Your task to perform on an android device: check out phone information Image 0: 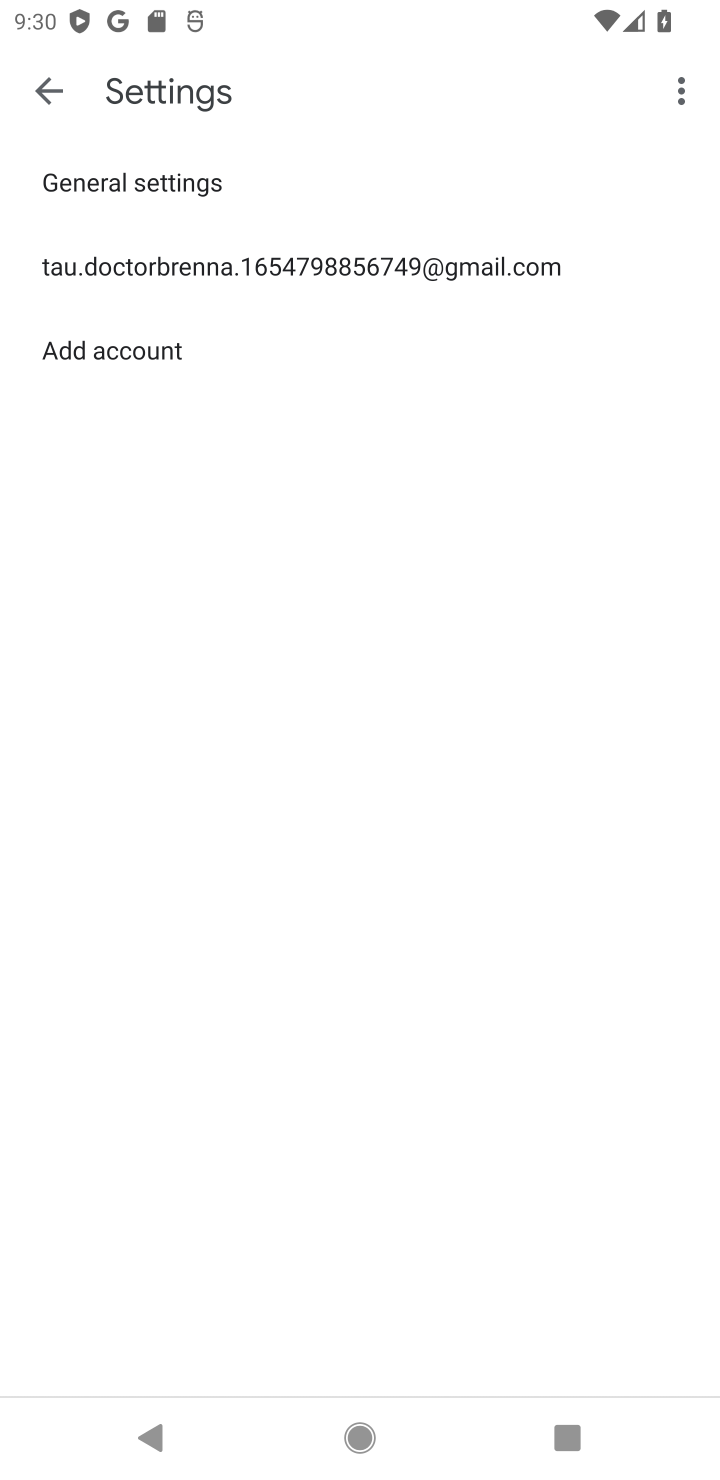
Step 0: press home button
Your task to perform on an android device: check out phone information Image 1: 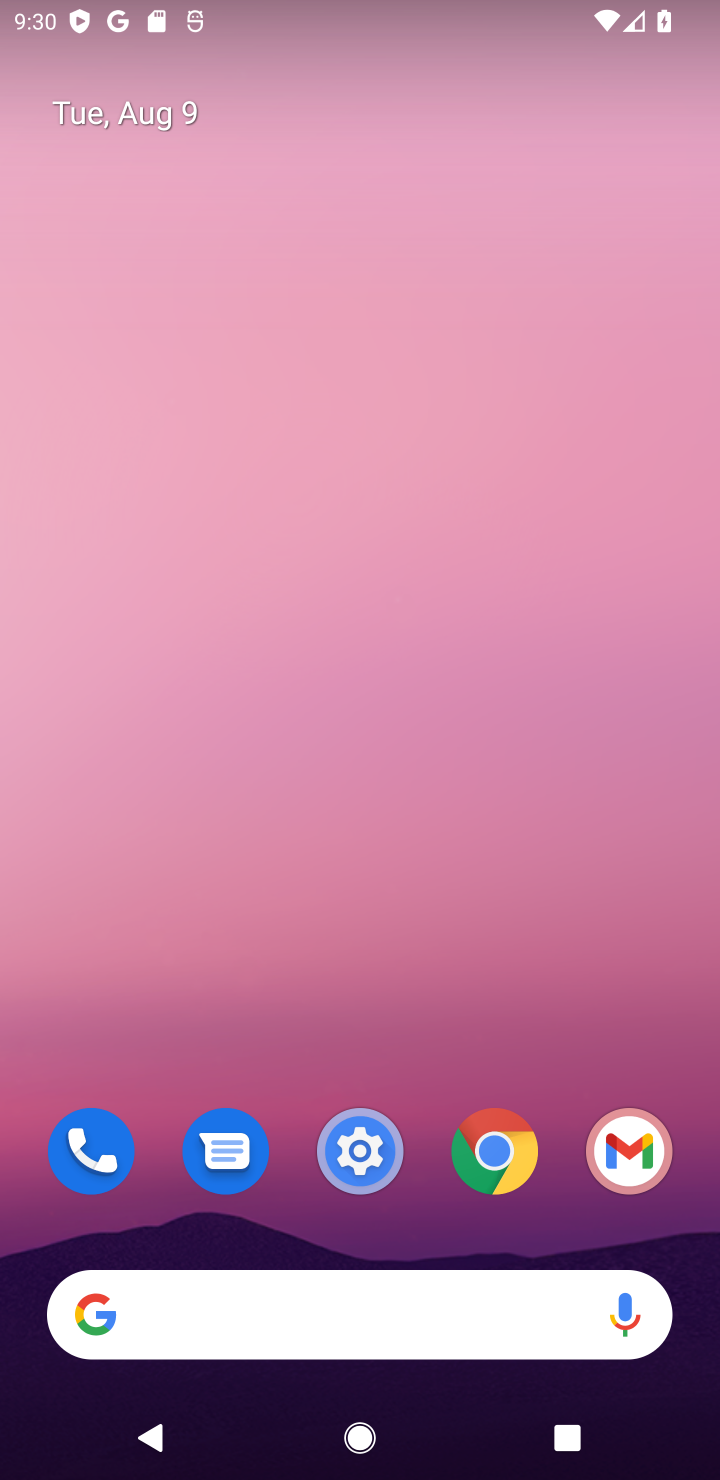
Step 1: click (349, 1151)
Your task to perform on an android device: check out phone information Image 2: 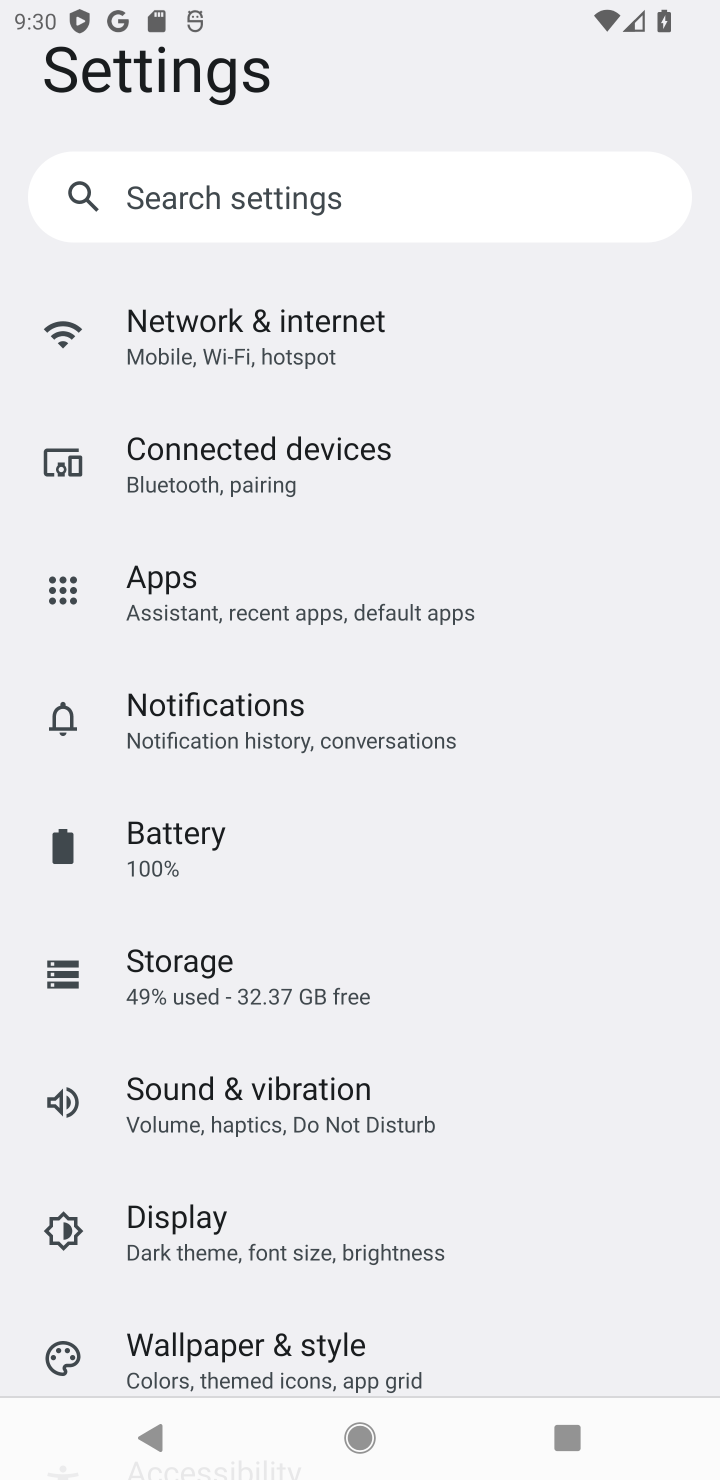
Step 2: drag from (611, 1260) to (568, 303)
Your task to perform on an android device: check out phone information Image 3: 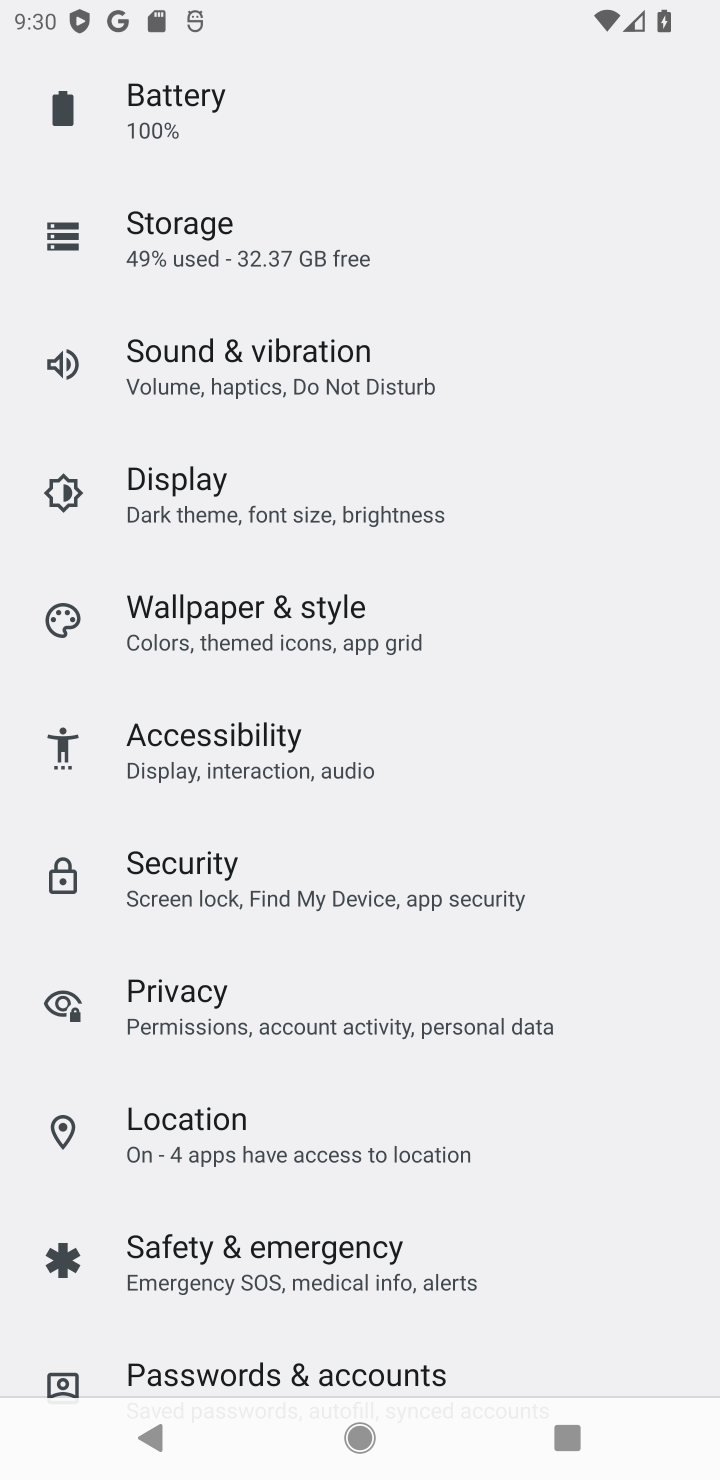
Step 3: drag from (580, 1232) to (484, 285)
Your task to perform on an android device: check out phone information Image 4: 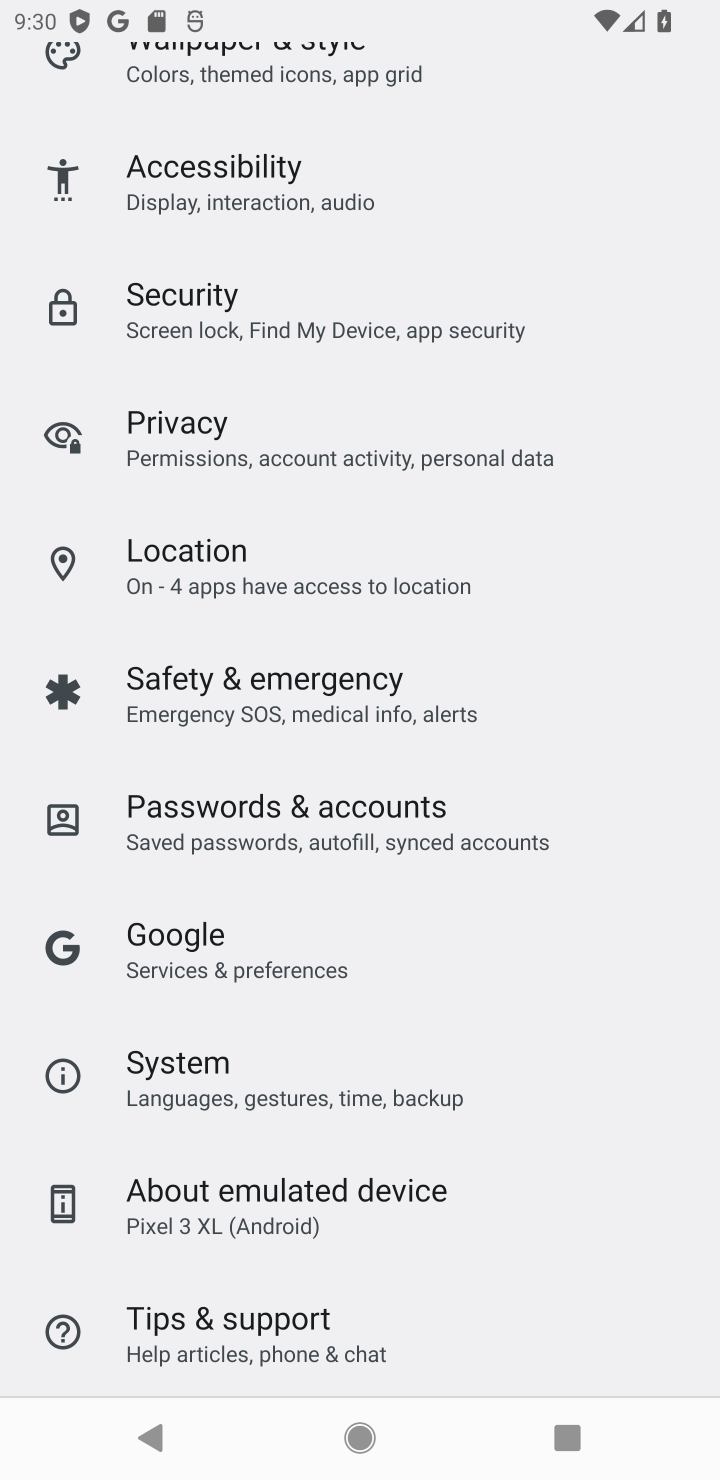
Step 4: drag from (540, 1276) to (510, 846)
Your task to perform on an android device: check out phone information Image 5: 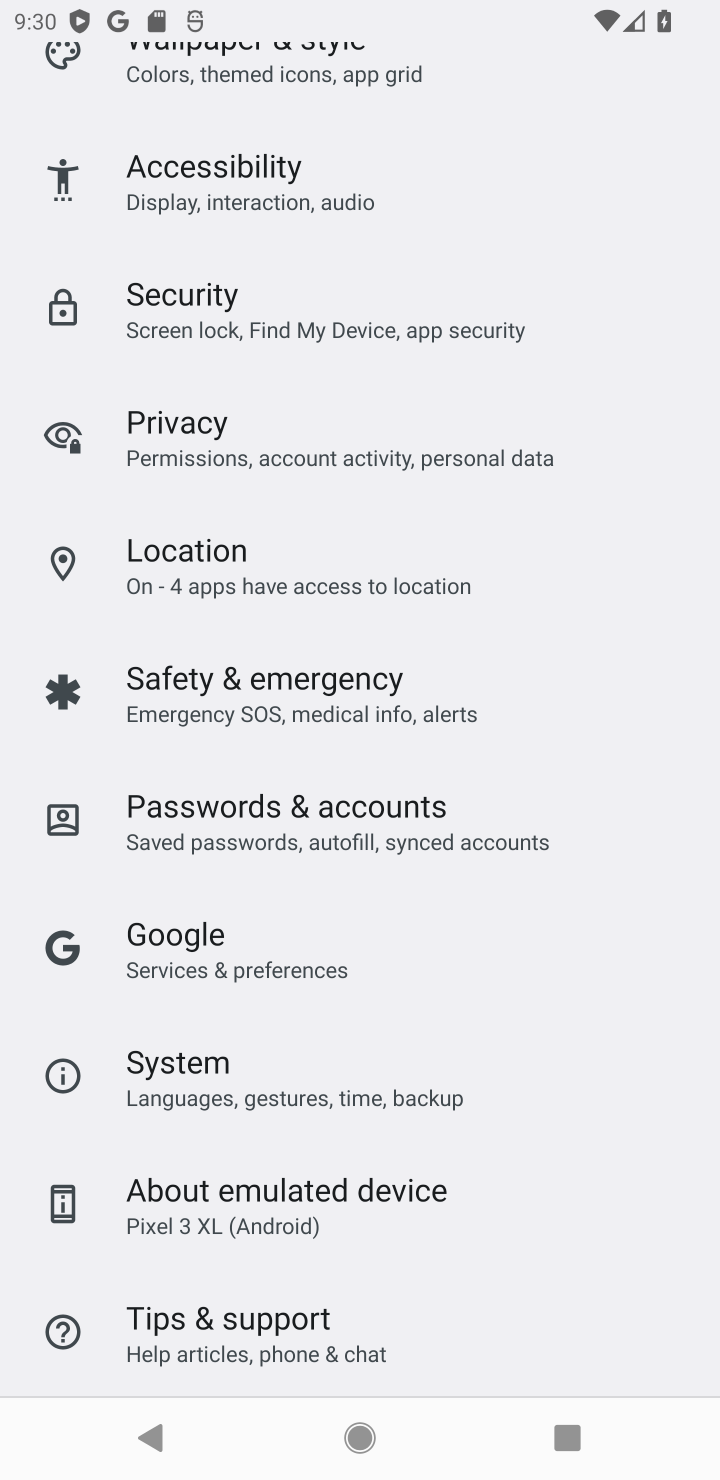
Step 5: click (270, 1225)
Your task to perform on an android device: check out phone information Image 6: 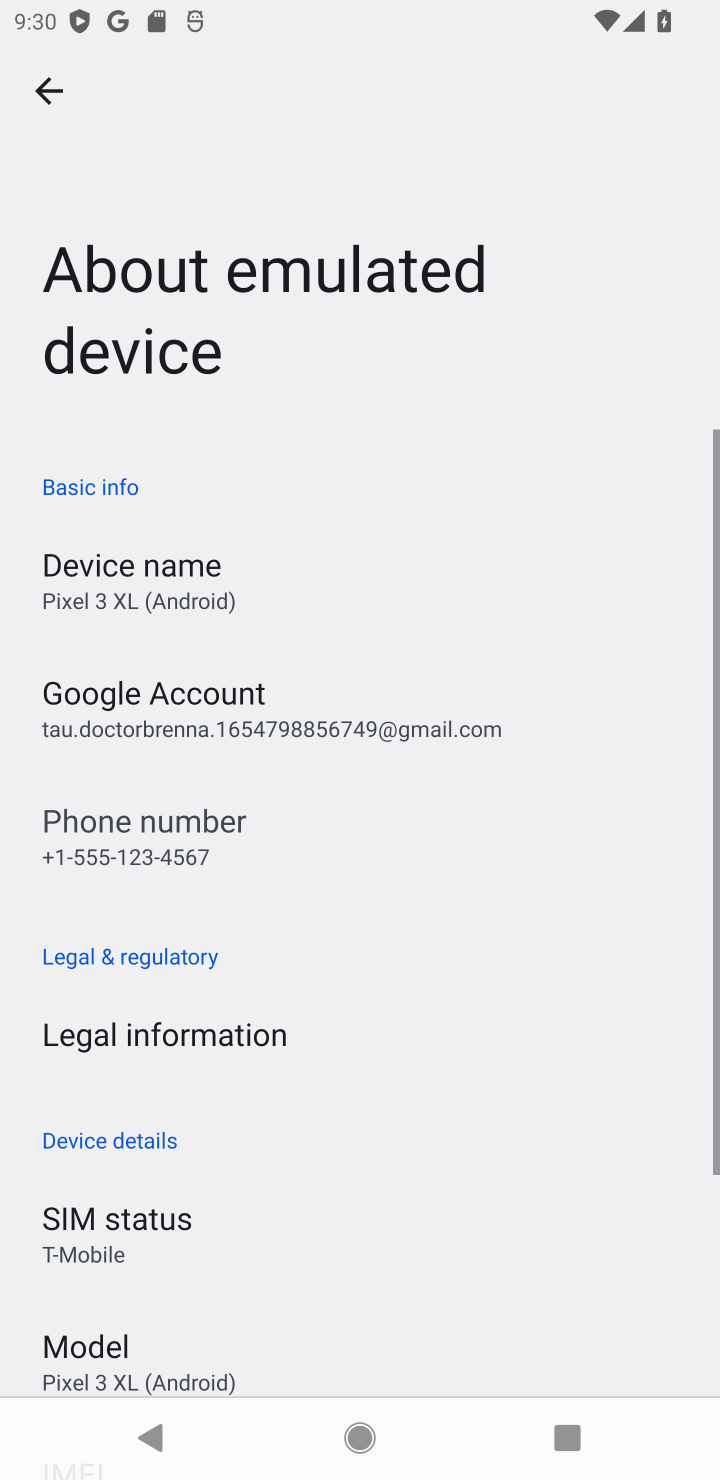
Step 6: task complete